Your task to perform on an android device: turn off smart reply in the gmail app Image 0: 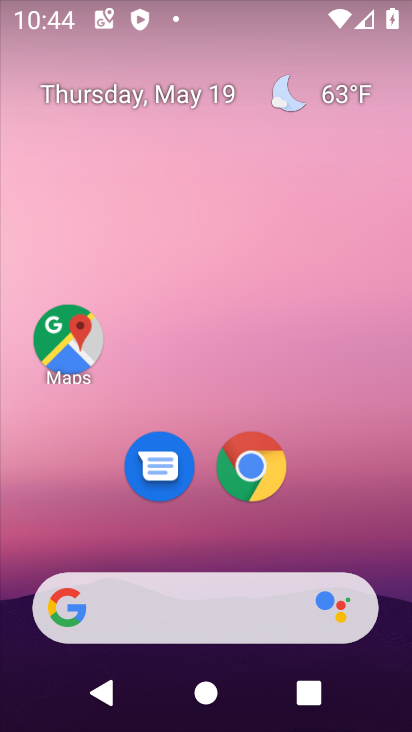
Step 0: drag from (390, 615) to (293, 40)
Your task to perform on an android device: turn off smart reply in the gmail app Image 1: 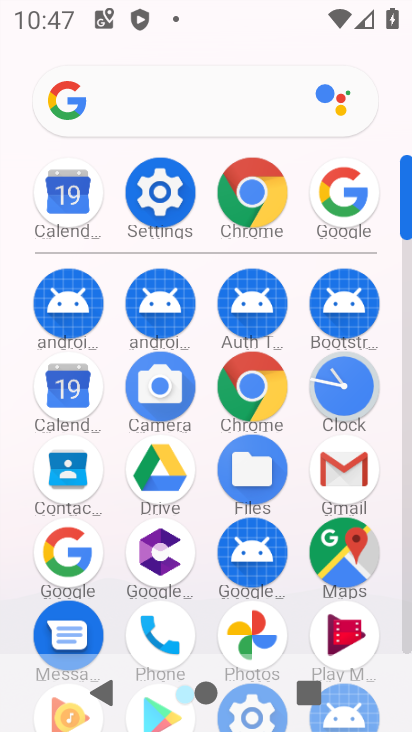
Step 1: click (357, 469)
Your task to perform on an android device: turn off smart reply in the gmail app Image 2: 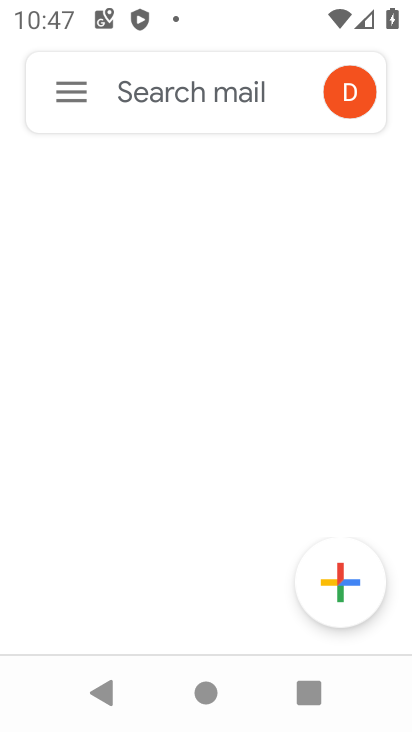
Step 2: click (51, 104)
Your task to perform on an android device: turn off smart reply in the gmail app Image 3: 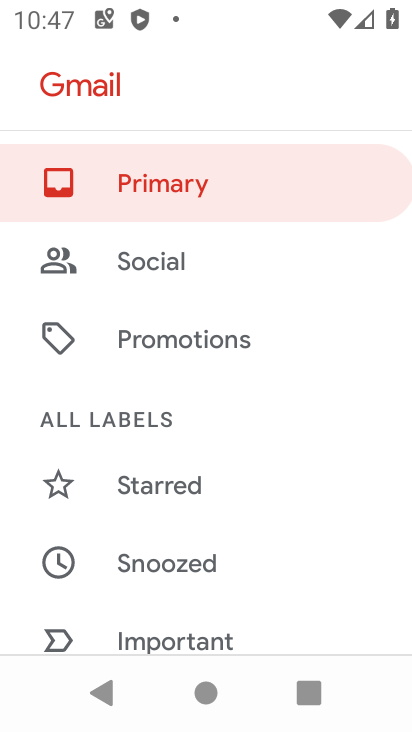
Step 3: drag from (123, 618) to (195, 84)
Your task to perform on an android device: turn off smart reply in the gmail app Image 4: 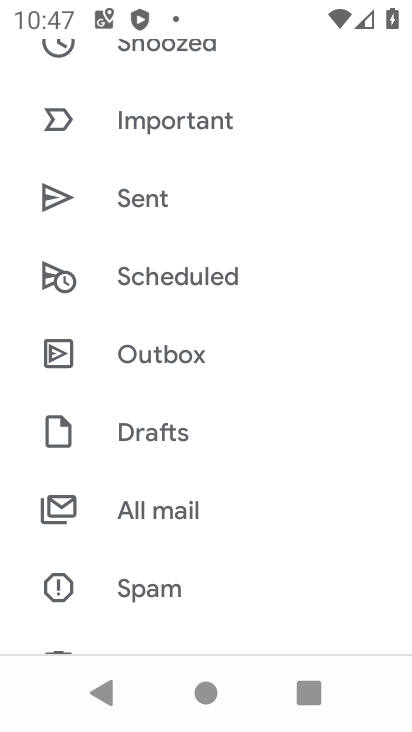
Step 4: drag from (163, 562) to (205, 104)
Your task to perform on an android device: turn off smart reply in the gmail app Image 5: 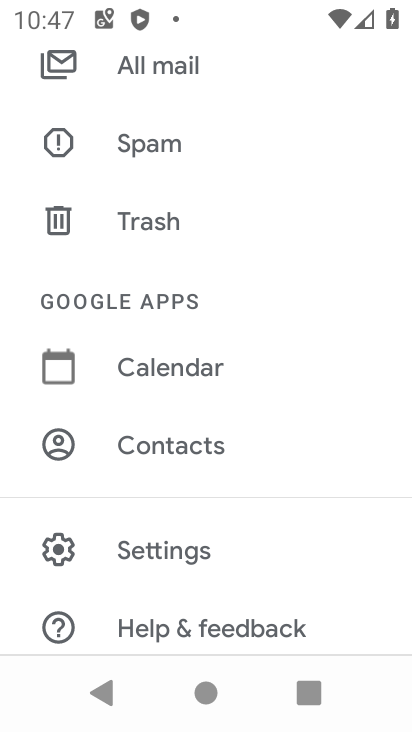
Step 5: click (213, 555)
Your task to perform on an android device: turn off smart reply in the gmail app Image 6: 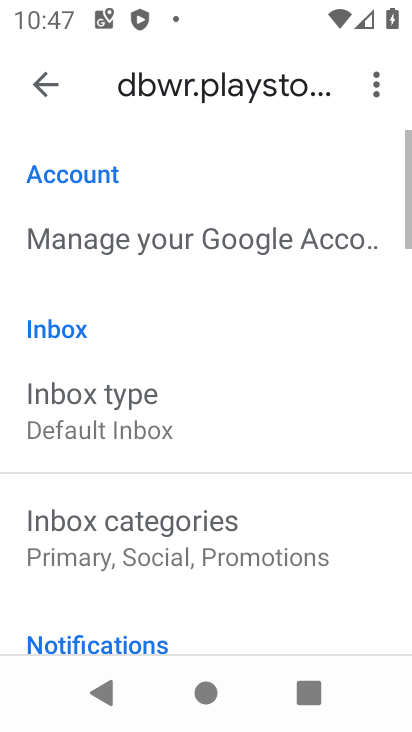
Step 6: drag from (215, 551) to (213, 99)
Your task to perform on an android device: turn off smart reply in the gmail app Image 7: 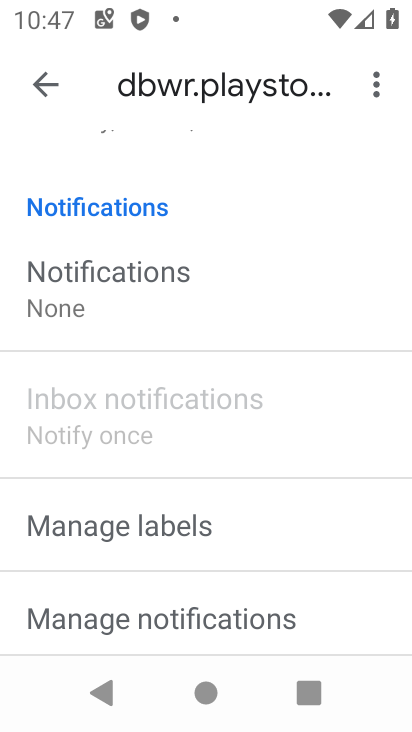
Step 7: drag from (201, 584) to (185, 83)
Your task to perform on an android device: turn off smart reply in the gmail app Image 8: 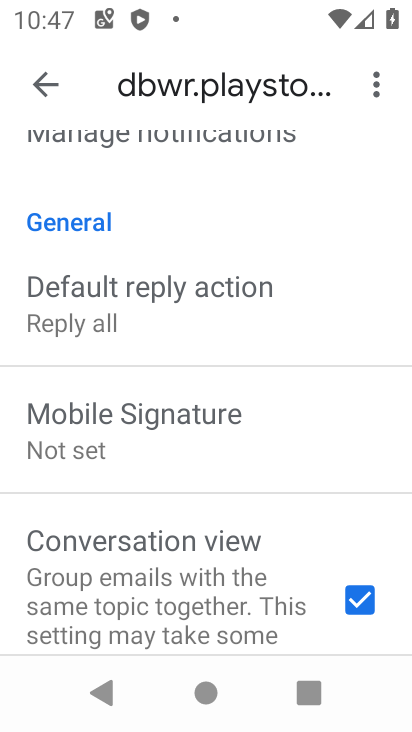
Step 8: drag from (197, 608) to (303, 114)
Your task to perform on an android device: turn off smart reply in the gmail app Image 9: 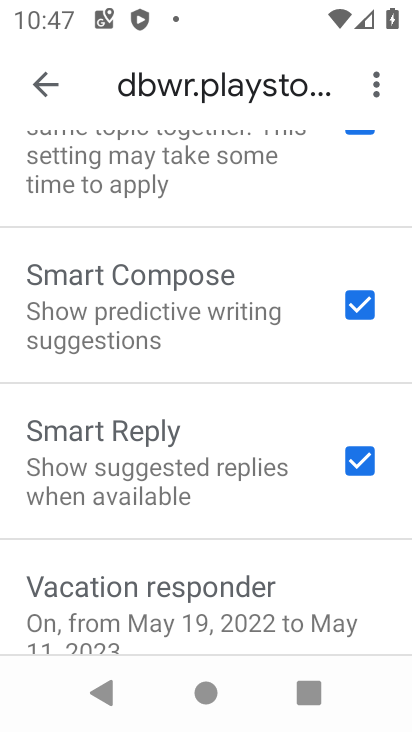
Step 9: click (262, 461)
Your task to perform on an android device: turn off smart reply in the gmail app Image 10: 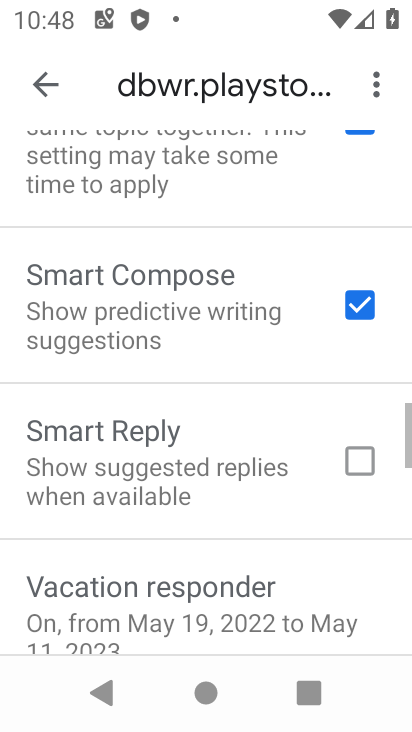
Step 10: task complete